Your task to perform on an android device: stop showing notifications on the lock screen Image 0: 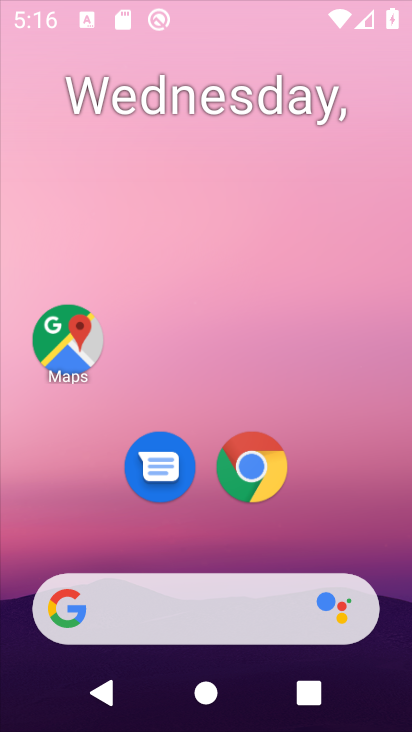
Step 0: press home button
Your task to perform on an android device: stop showing notifications on the lock screen Image 1: 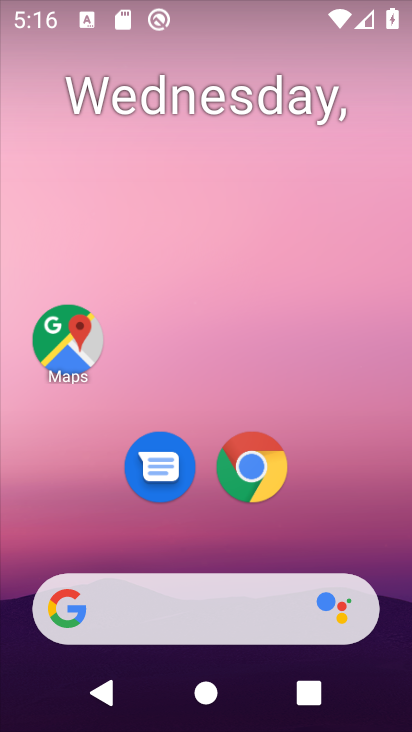
Step 1: drag from (316, 469) to (205, 31)
Your task to perform on an android device: stop showing notifications on the lock screen Image 2: 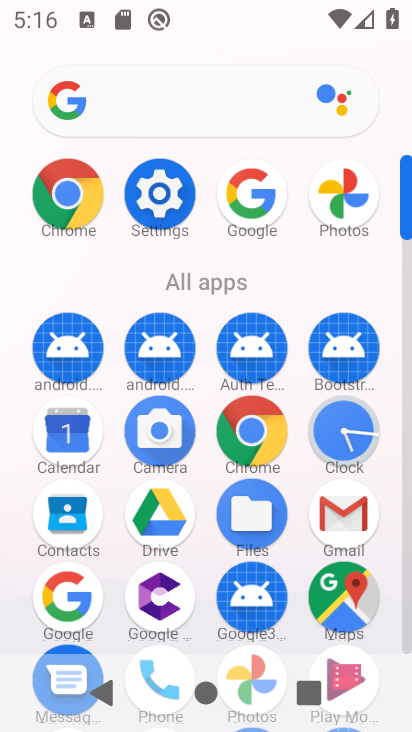
Step 2: click (165, 216)
Your task to perform on an android device: stop showing notifications on the lock screen Image 3: 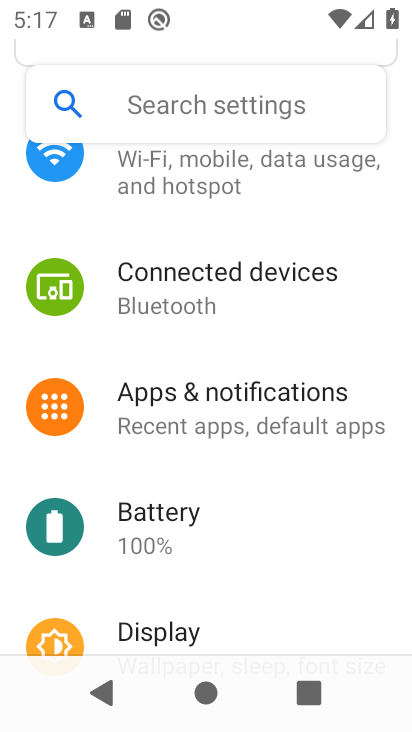
Step 3: click (215, 396)
Your task to perform on an android device: stop showing notifications on the lock screen Image 4: 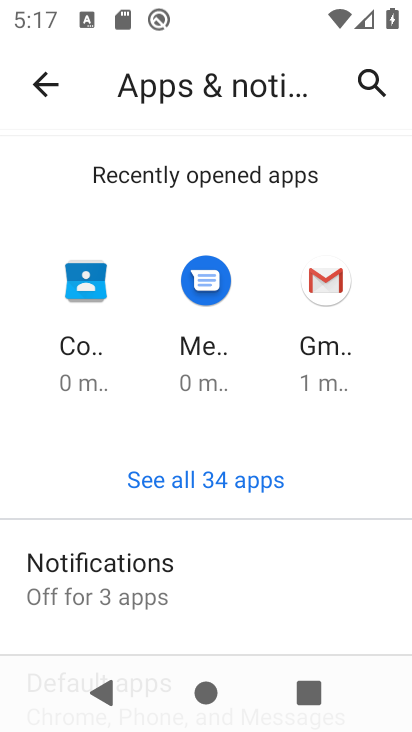
Step 4: click (217, 583)
Your task to perform on an android device: stop showing notifications on the lock screen Image 5: 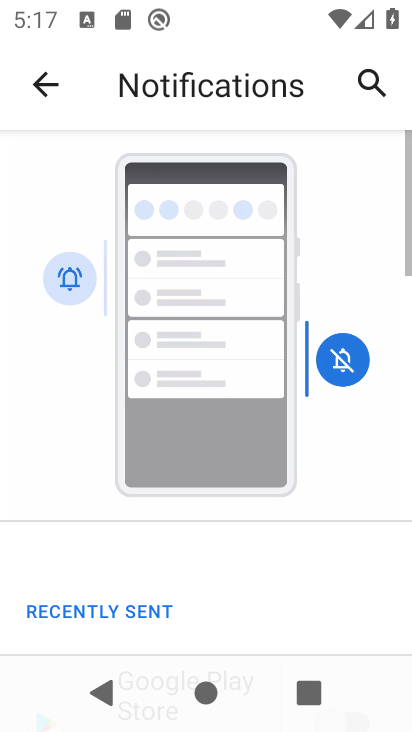
Step 5: drag from (233, 559) to (217, 224)
Your task to perform on an android device: stop showing notifications on the lock screen Image 6: 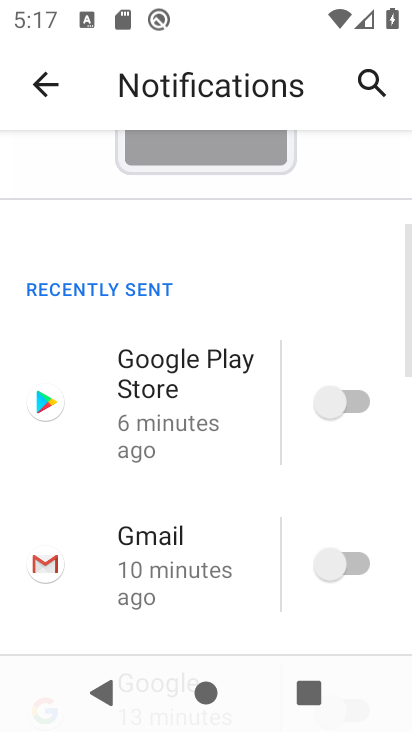
Step 6: drag from (230, 351) to (215, 118)
Your task to perform on an android device: stop showing notifications on the lock screen Image 7: 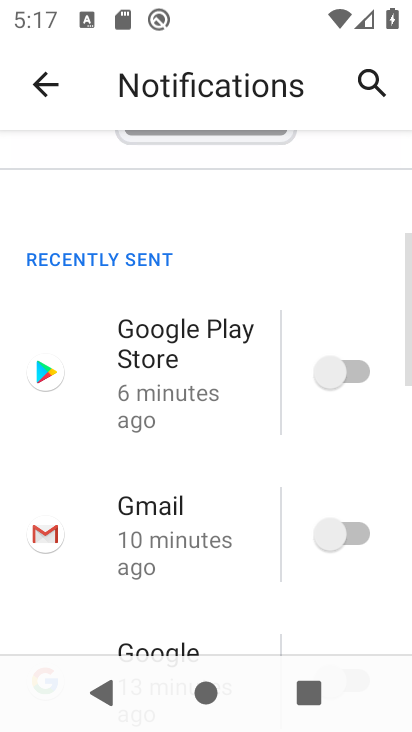
Step 7: drag from (223, 516) to (212, 170)
Your task to perform on an android device: stop showing notifications on the lock screen Image 8: 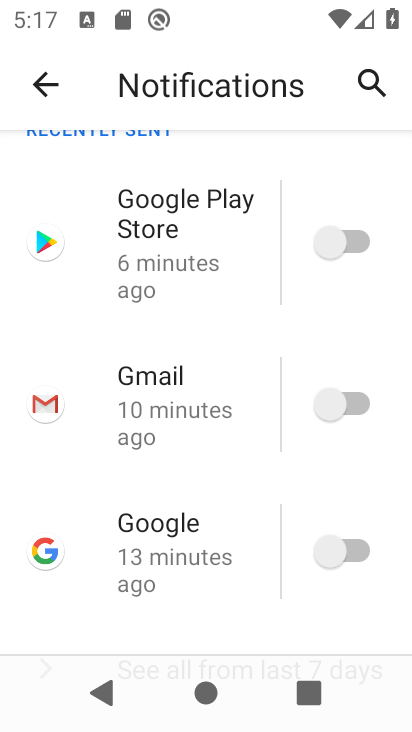
Step 8: drag from (212, 457) to (201, 133)
Your task to perform on an android device: stop showing notifications on the lock screen Image 9: 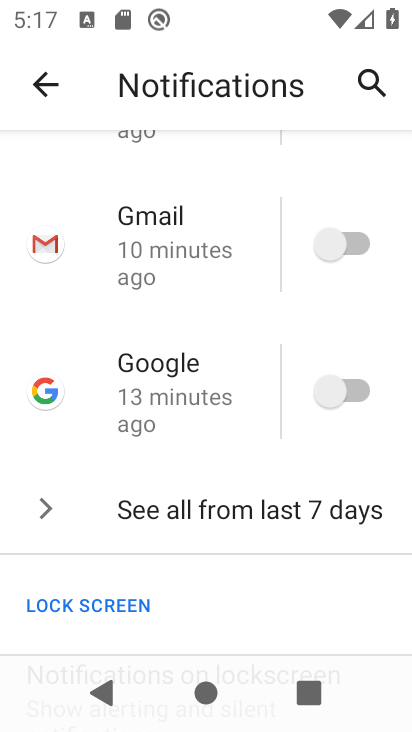
Step 9: drag from (231, 544) to (219, 150)
Your task to perform on an android device: stop showing notifications on the lock screen Image 10: 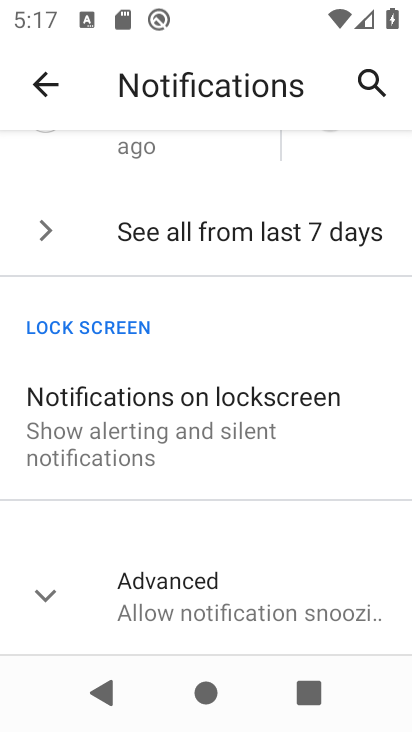
Step 10: click (192, 432)
Your task to perform on an android device: stop showing notifications on the lock screen Image 11: 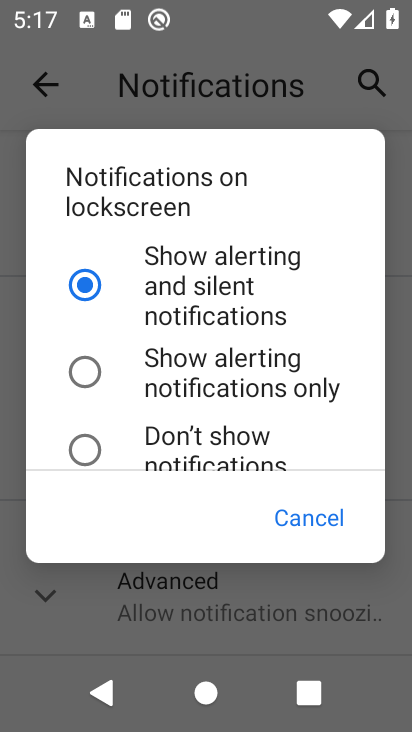
Step 11: click (207, 446)
Your task to perform on an android device: stop showing notifications on the lock screen Image 12: 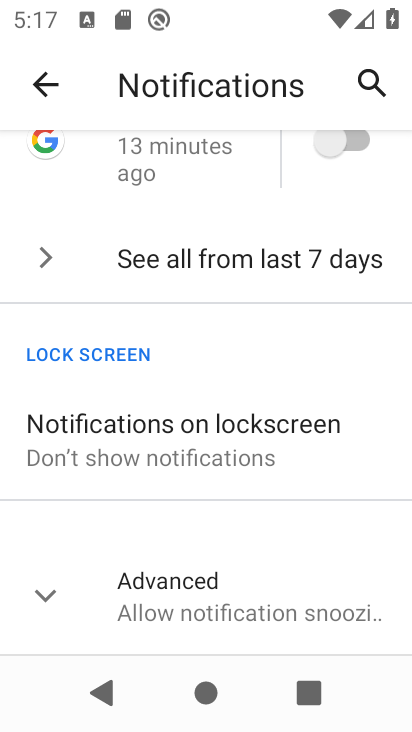
Step 12: task complete